Your task to perform on an android device: Go to ESPN.com Image 0: 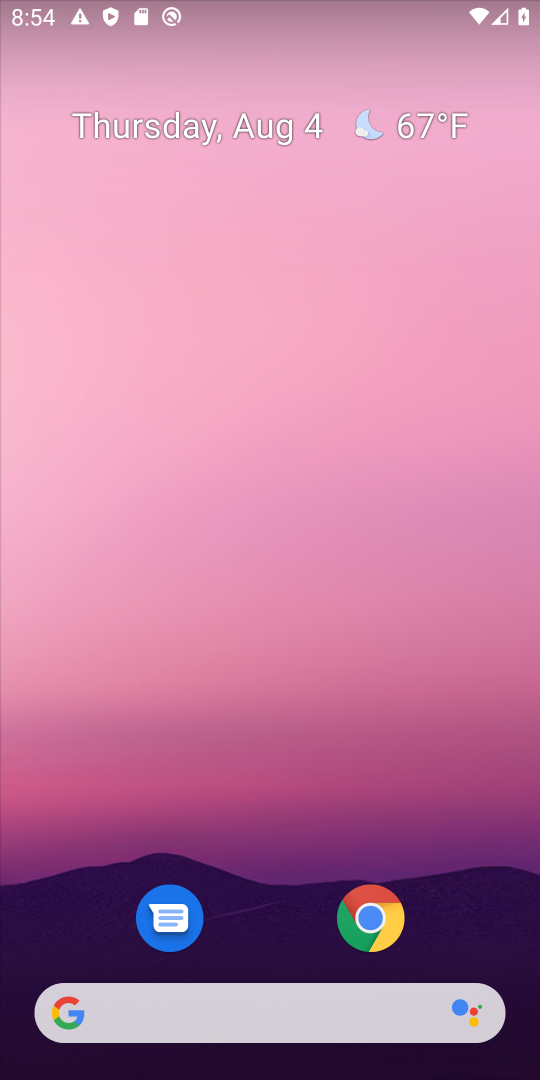
Step 0: press home button
Your task to perform on an android device: Go to ESPN.com Image 1: 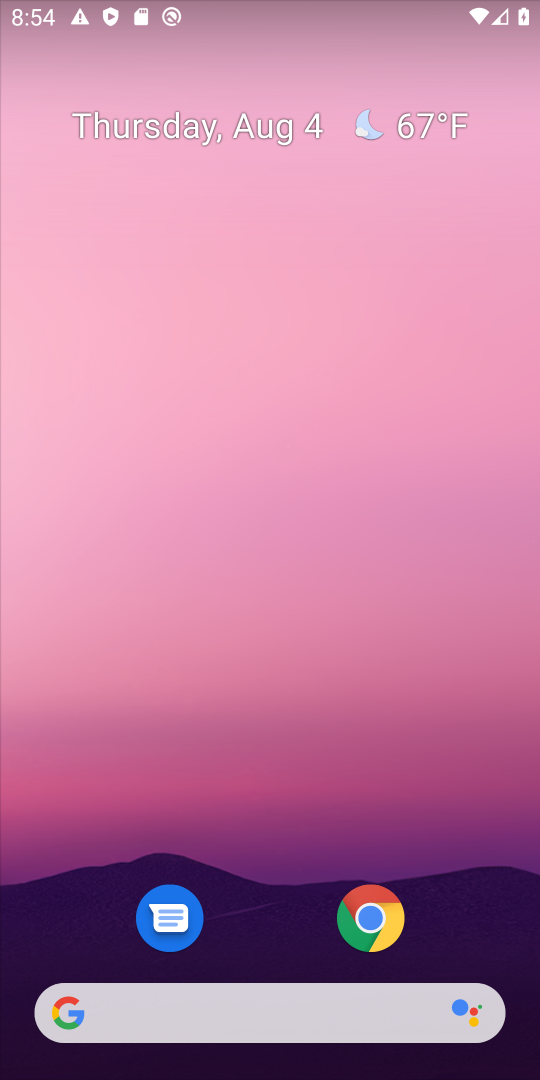
Step 1: click (371, 912)
Your task to perform on an android device: Go to ESPN.com Image 2: 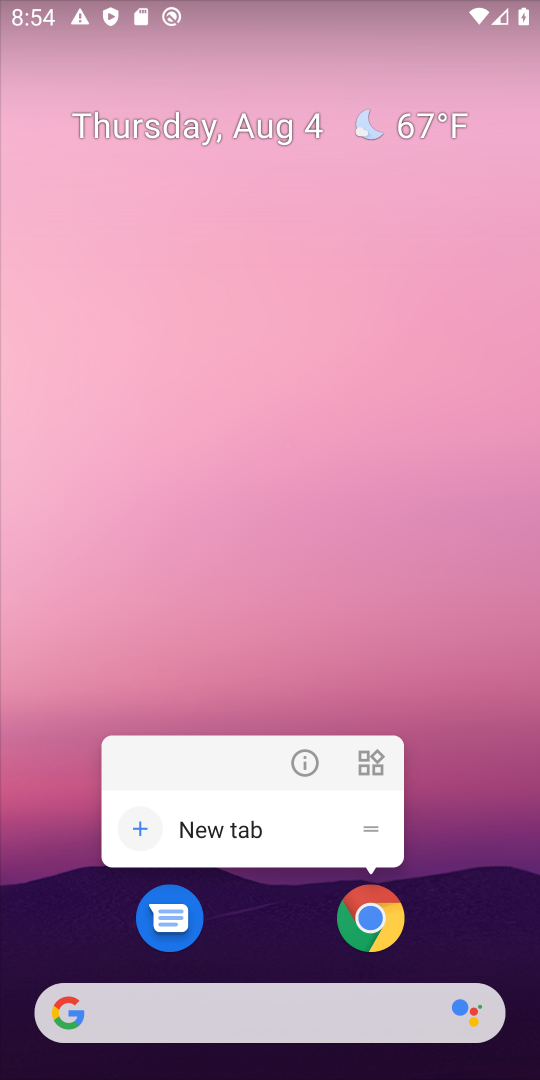
Step 2: click (369, 906)
Your task to perform on an android device: Go to ESPN.com Image 3: 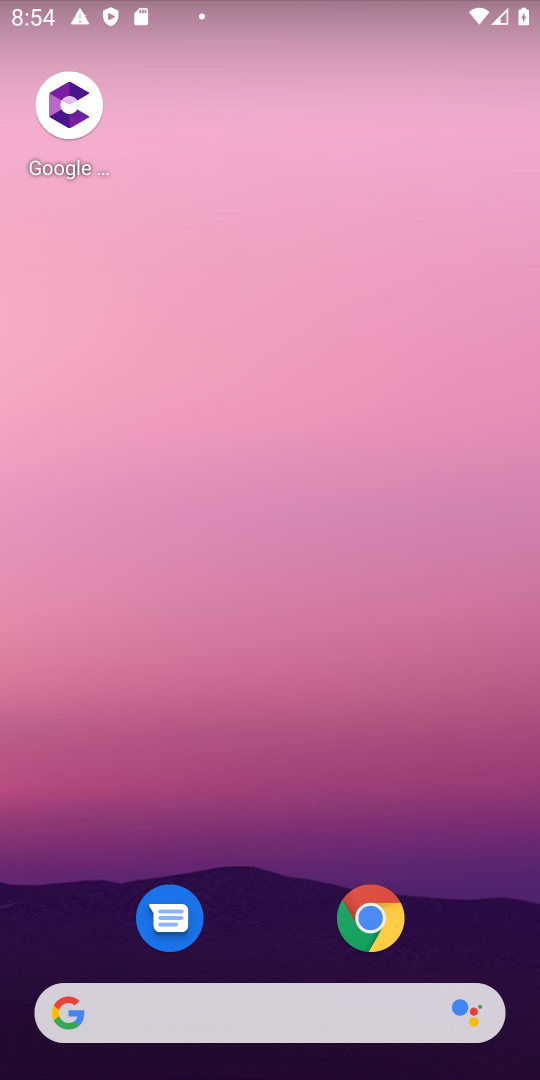
Step 3: click (371, 914)
Your task to perform on an android device: Go to ESPN.com Image 4: 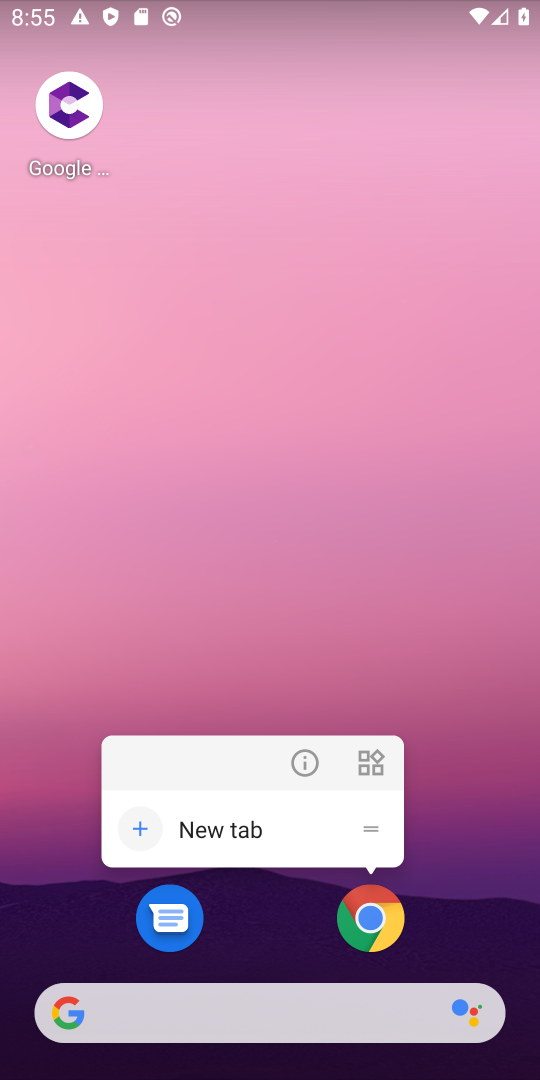
Step 4: click (423, 905)
Your task to perform on an android device: Go to ESPN.com Image 5: 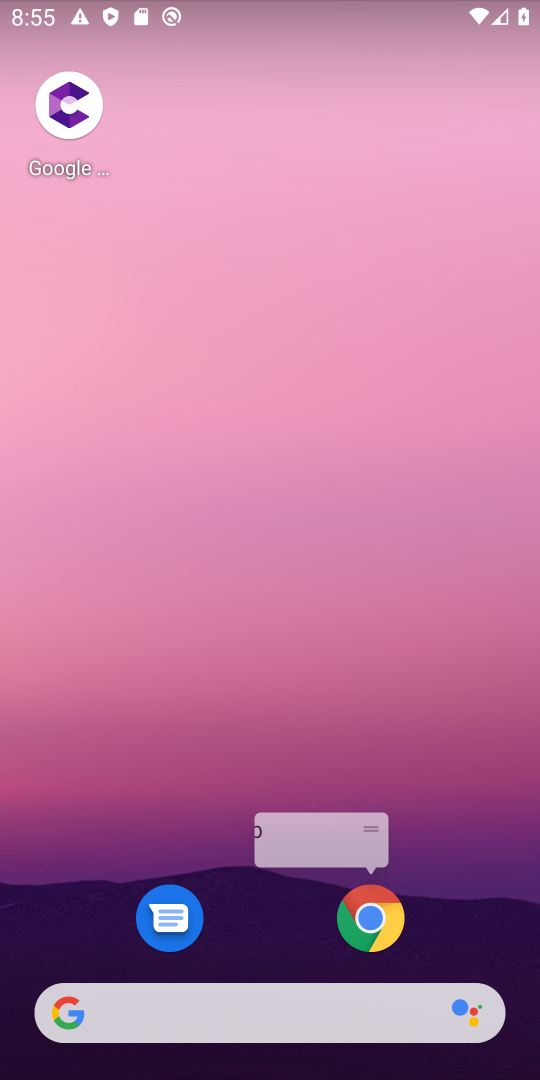
Step 5: drag from (429, 938) to (441, 275)
Your task to perform on an android device: Go to ESPN.com Image 6: 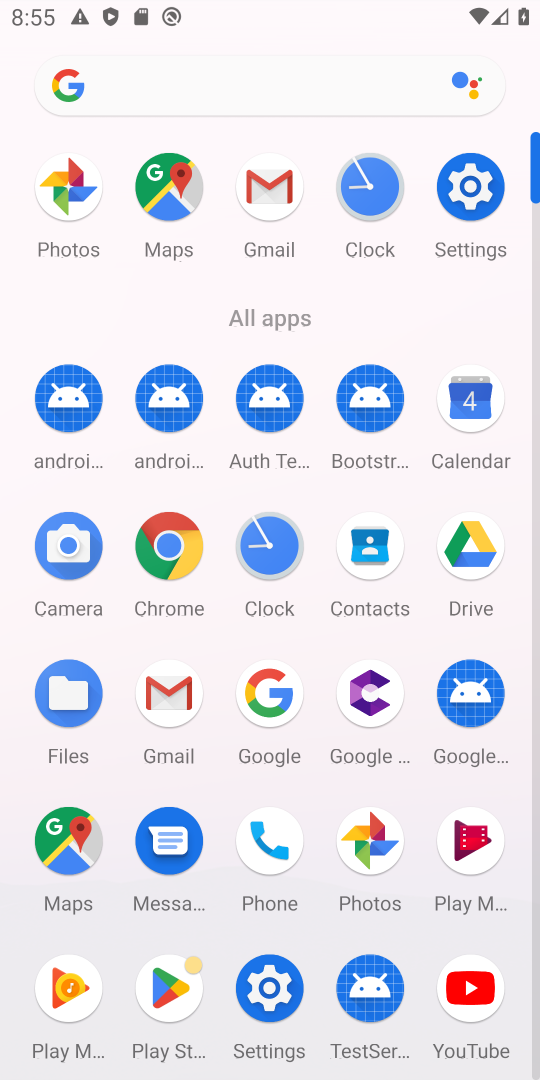
Step 6: click (156, 539)
Your task to perform on an android device: Go to ESPN.com Image 7: 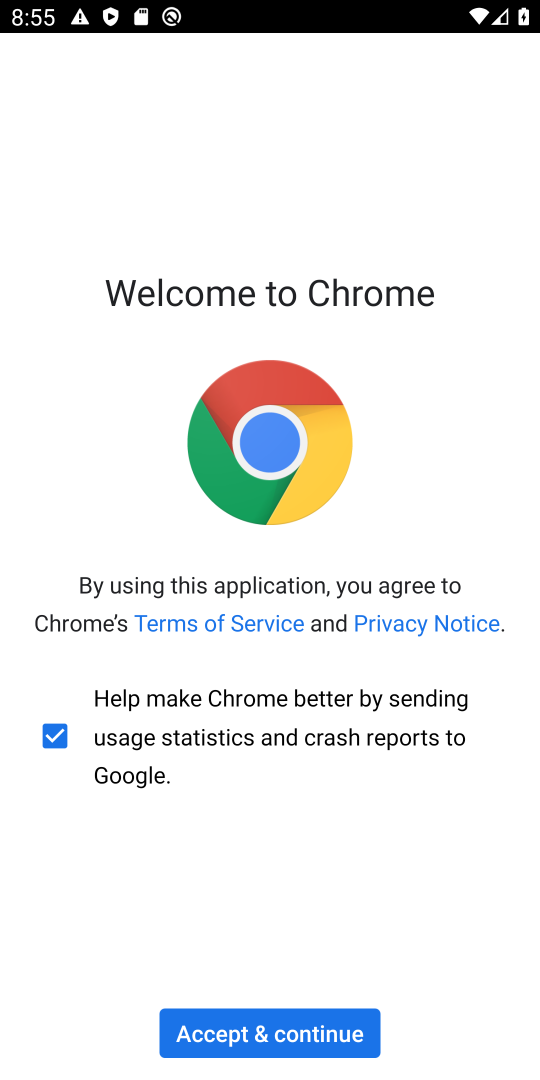
Step 7: click (254, 1024)
Your task to perform on an android device: Go to ESPN.com Image 8: 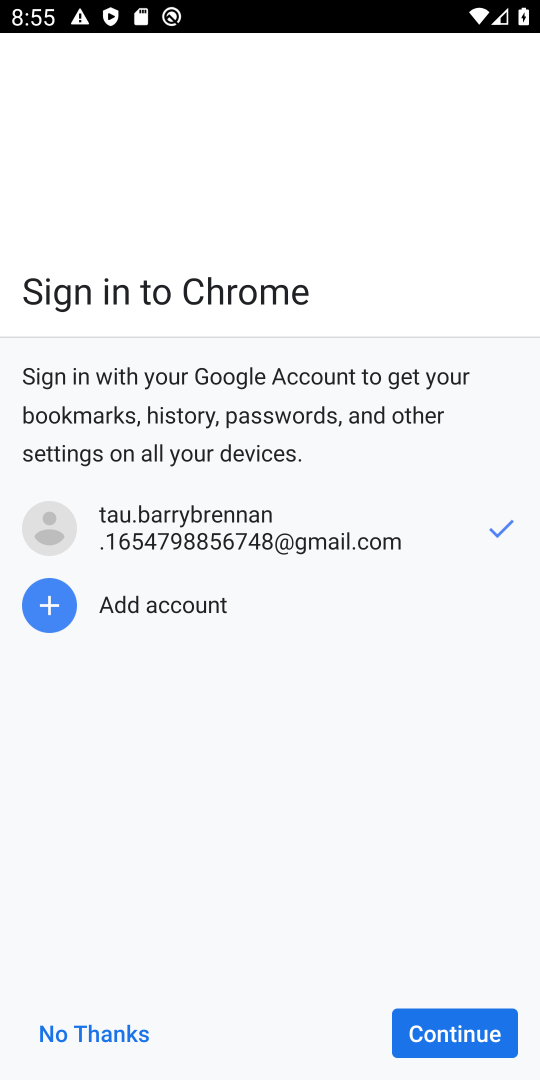
Step 8: click (456, 1025)
Your task to perform on an android device: Go to ESPN.com Image 9: 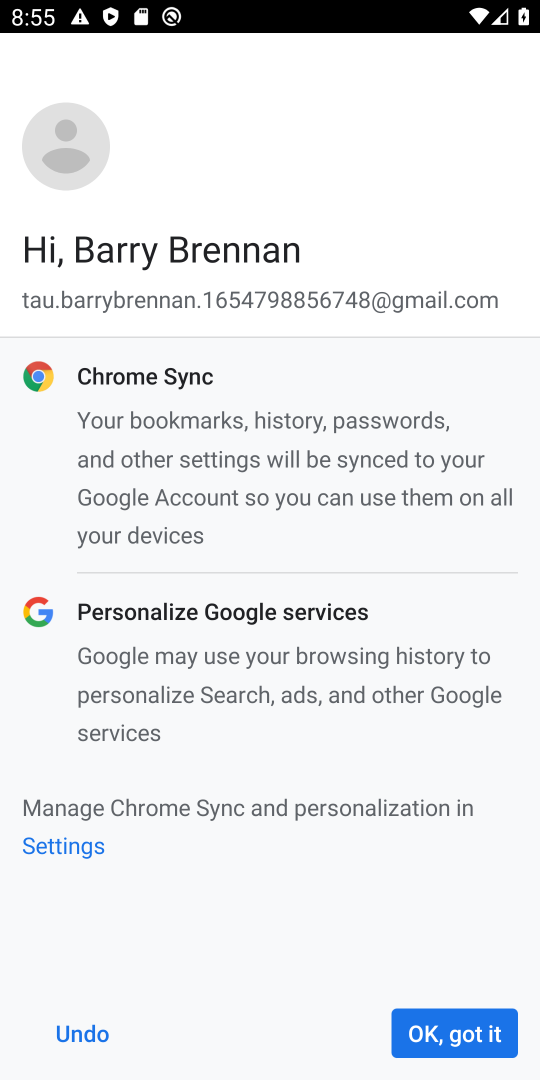
Step 9: click (456, 1025)
Your task to perform on an android device: Go to ESPN.com Image 10: 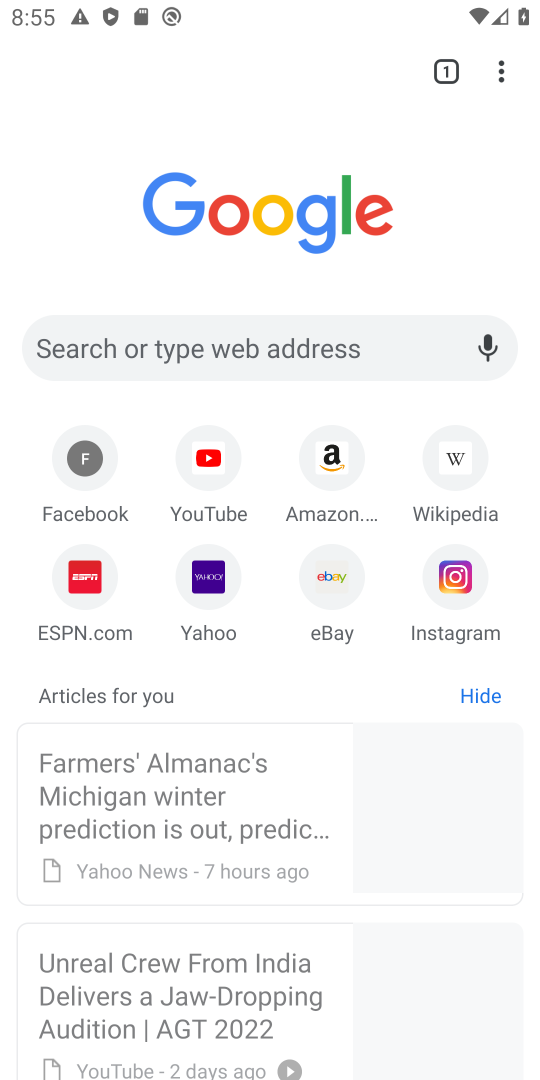
Step 10: click (79, 577)
Your task to perform on an android device: Go to ESPN.com Image 11: 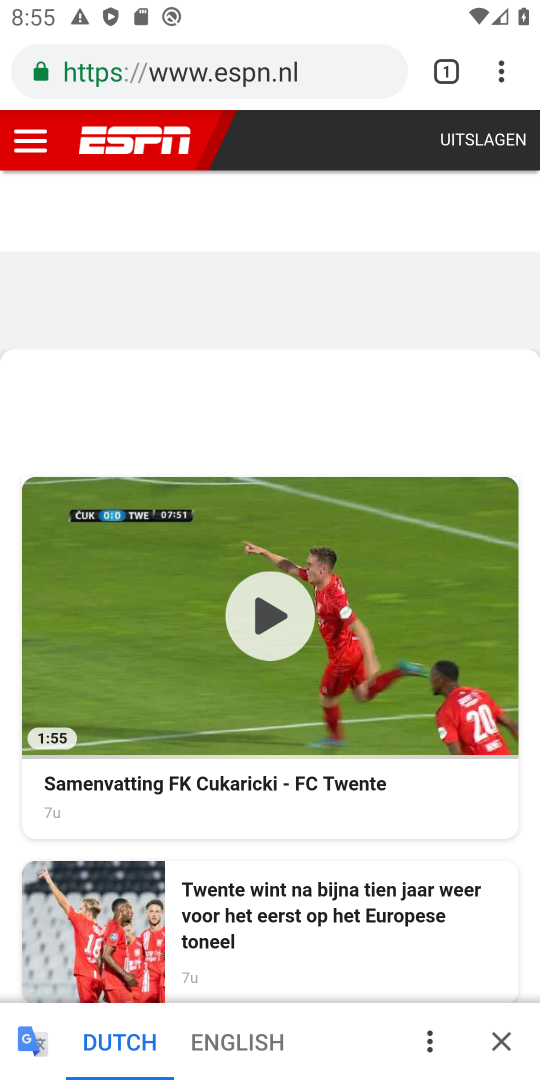
Step 11: click (493, 1047)
Your task to perform on an android device: Go to ESPN.com Image 12: 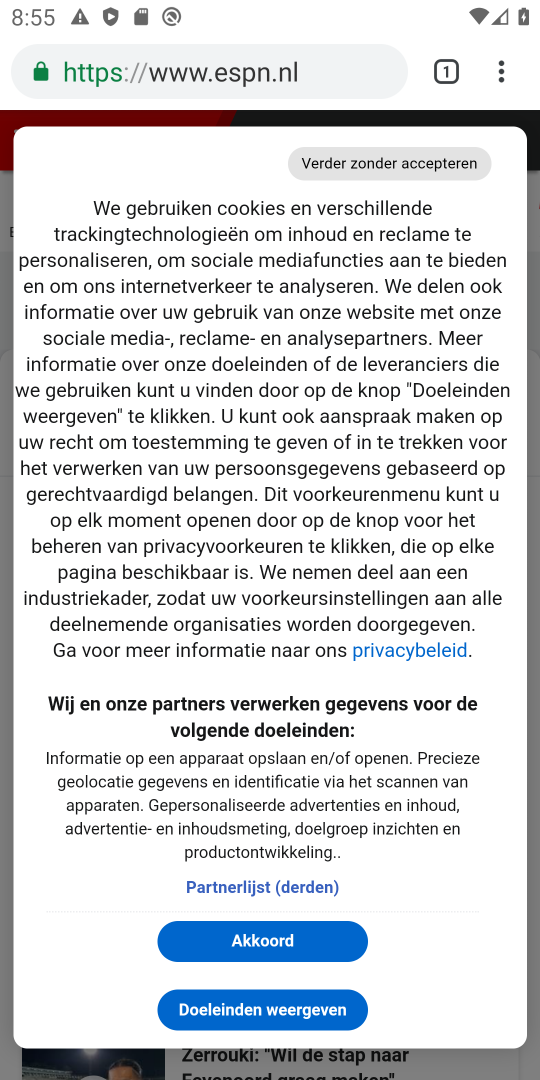
Step 12: click (260, 941)
Your task to perform on an android device: Go to ESPN.com Image 13: 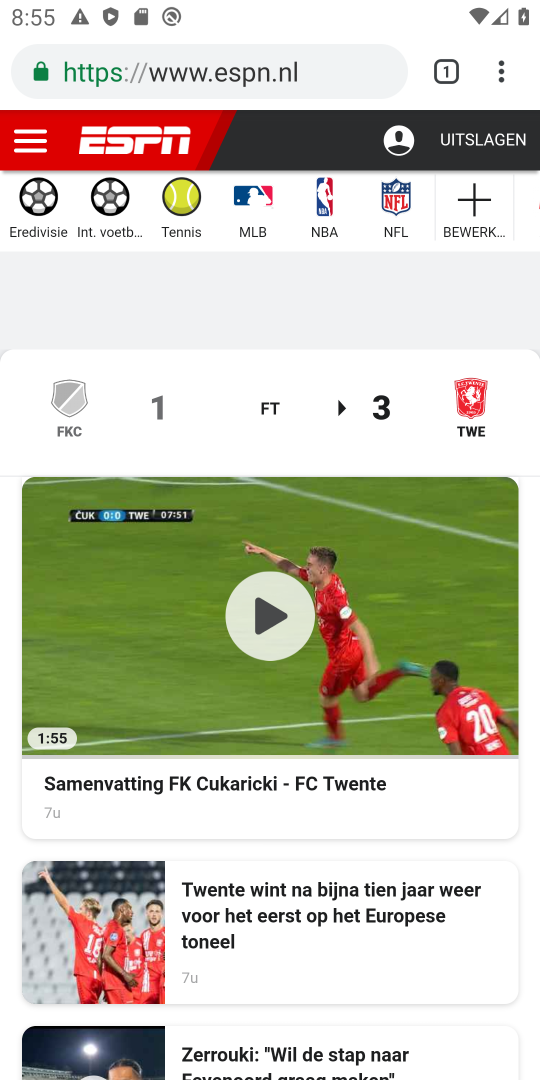
Step 13: task complete